Your task to perform on an android device: Is it going to rain tomorrow? Image 0: 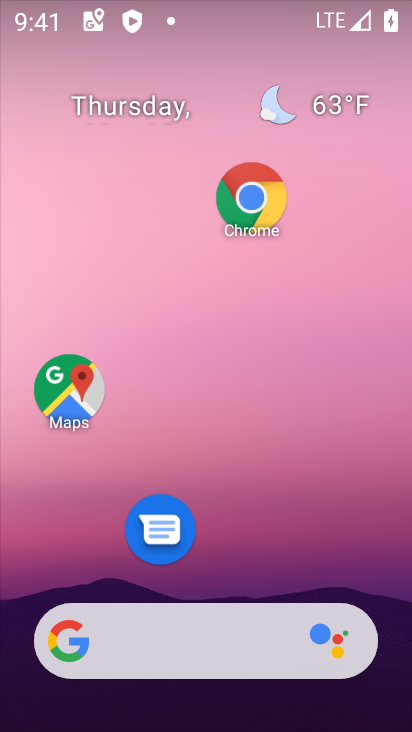
Step 0: press home button
Your task to perform on an android device: Is it going to rain tomorrow? Image 1: 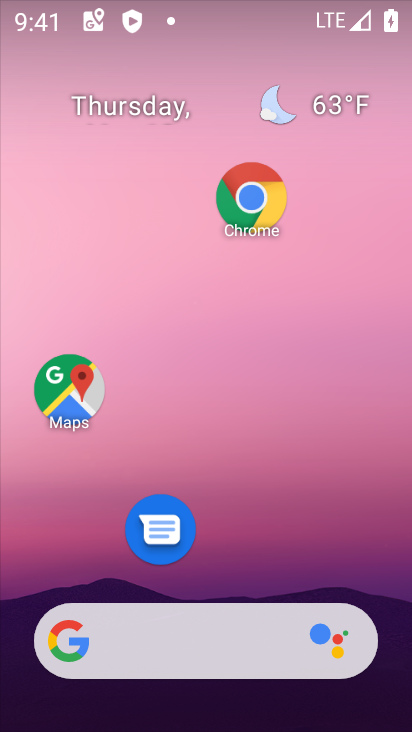
Step 1: drag from (250, 549) to (275, 247)
Your task to perform on an android device: Is it going to rain tomorrow? Image 2: 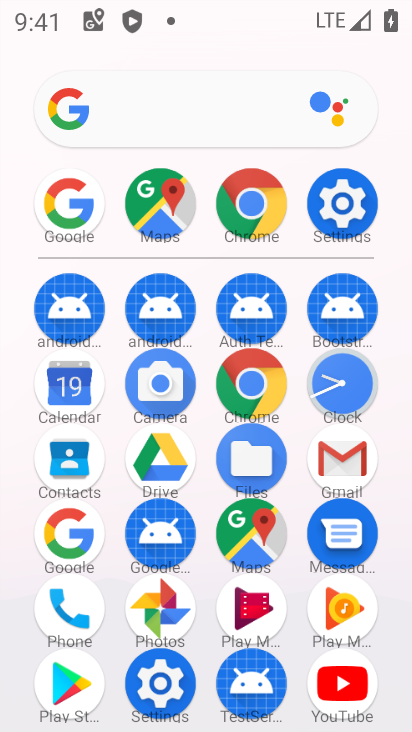
Step 2: click (74, 534)
Your task to perform on an android device: Is it going to rain tomorrow? Image 3: 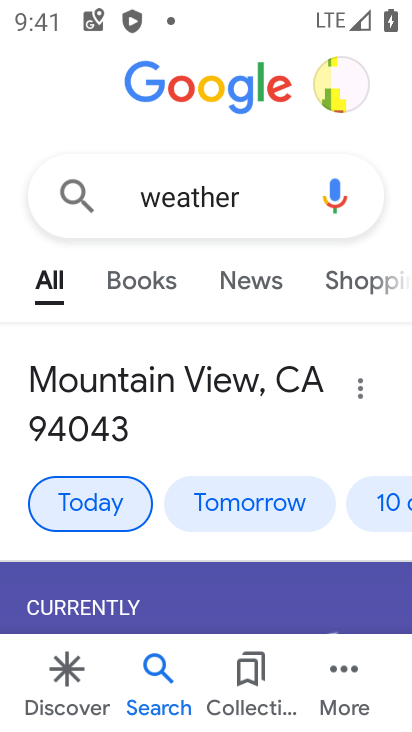
Step 3: click (255, 506)
Your task to perform on an android device: Is it going to rain tomorrow? Image 4: 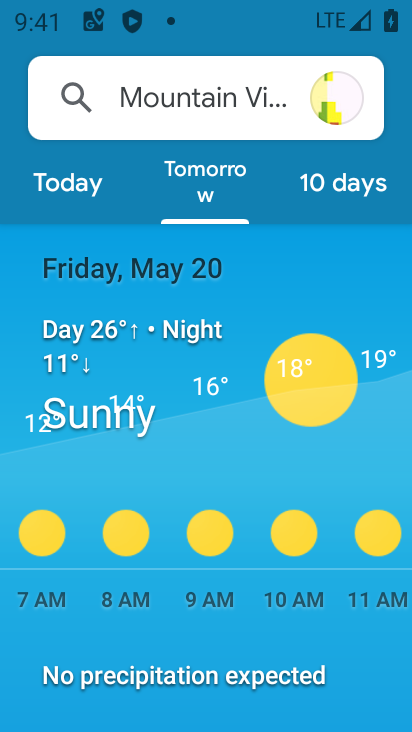
Step 4: task complete